Your task to perform on an android device: delete a single message in the gmail app Image 0: 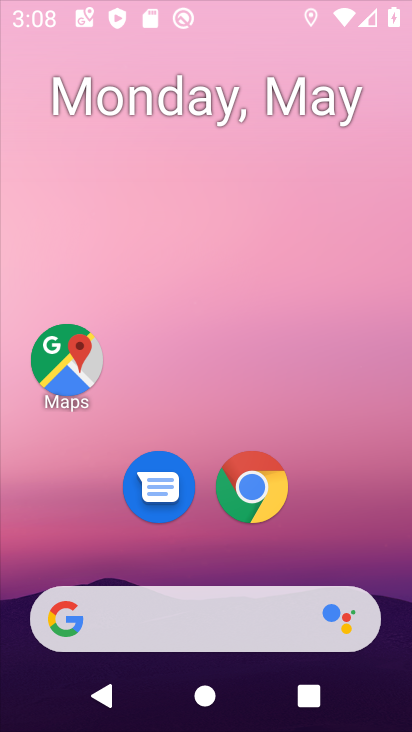
Step 0: click (266, 42)
Your task to perform on an android device: delete a single message in the gmail app Image 1: 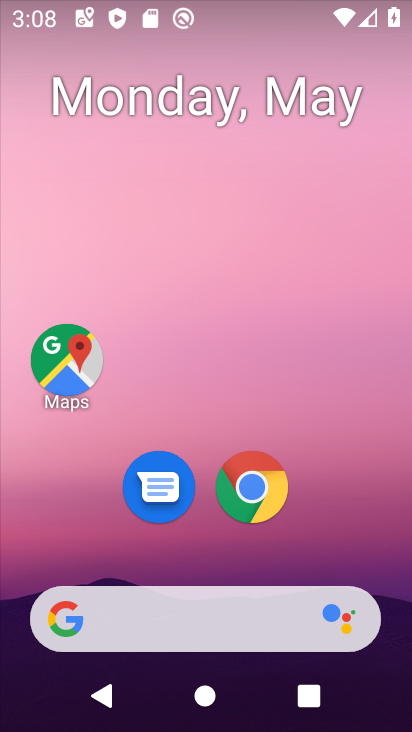
Step 1: drag from (212, 560) to (203, 226)
Your task to perform on an android device: delete a single message in the gmail app Image 2: 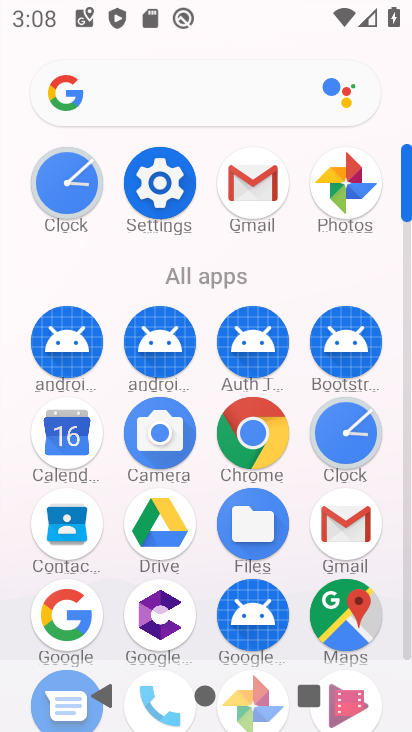
Step 2: drag from (216, 589) to (209, 232)
Your task to perform on an android device: delete a single message in the gmail app Image 3: 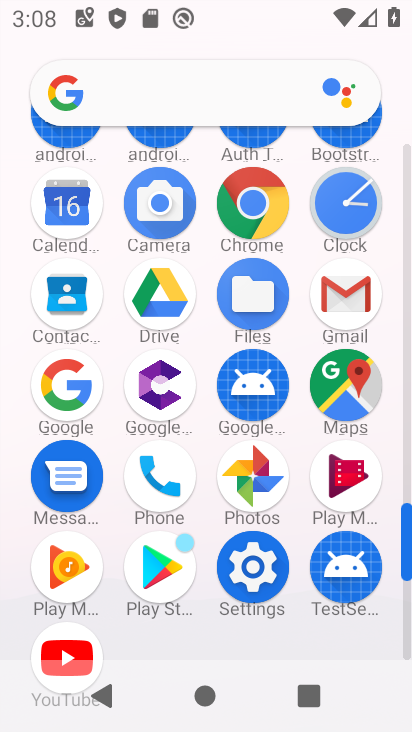
Step 3: click (352, 291)
Your task to perform on an android device: delete a single message in the gmail app Image 4: 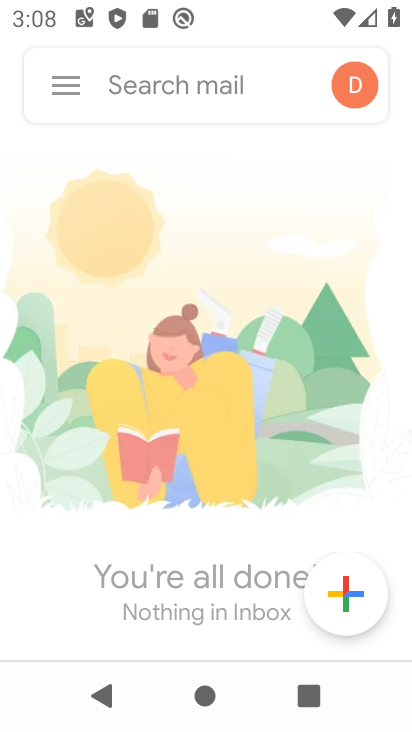
Step 4: drag from (200, 596) to (218, 235)
Your task to perform on an android device: delete a single message in the gmail app Image 5: 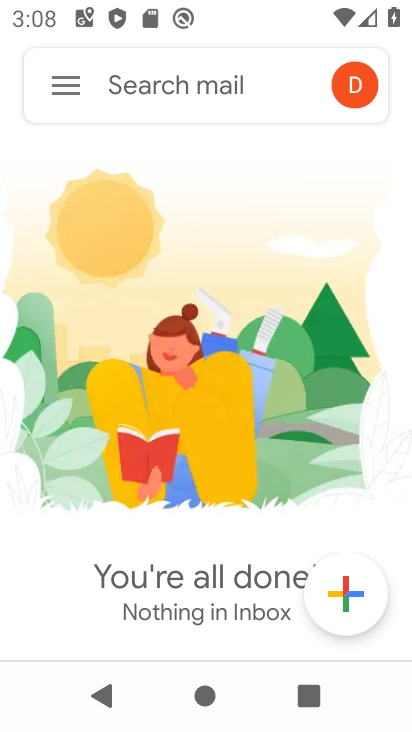
Step 5: click (65, 86)
Your task to perform on an android device: delete a single message in the gmail app Image 6: 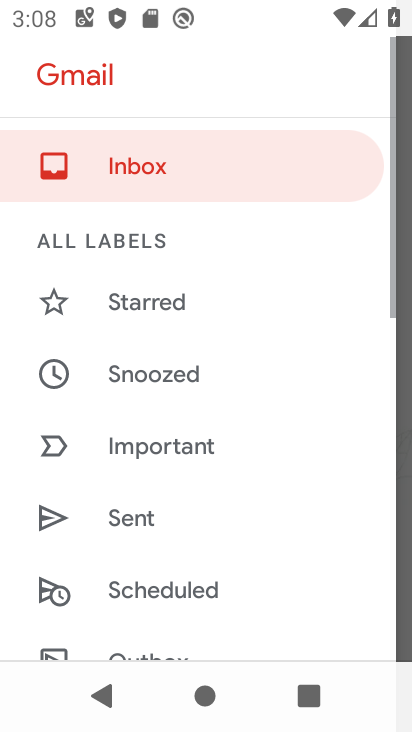
Step 6: drag from (214, 482) to (250, 212)
Your task to perform on an android device: delete a single message in the gmail app Image 7: 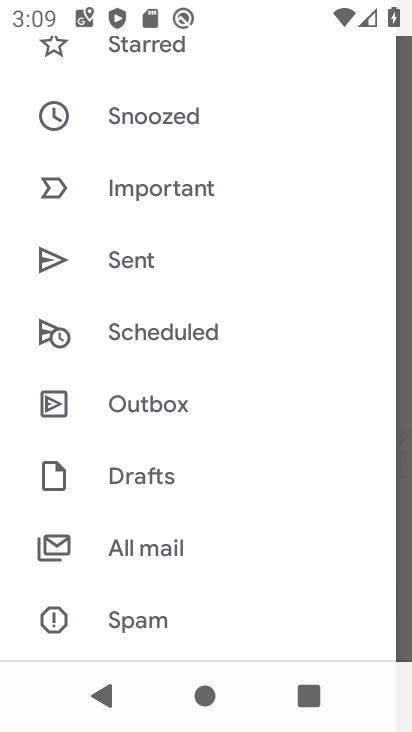
Step 7: click (109, 537)
Your task to perform on an android device: delete a single message in the gmail app Image 8: 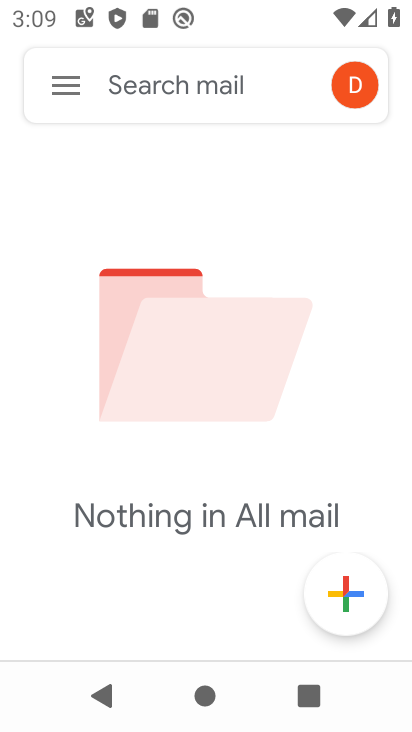
Step 8: task complete